Your task to perform on an android device: visit the assistant section in the google photos Image 0: 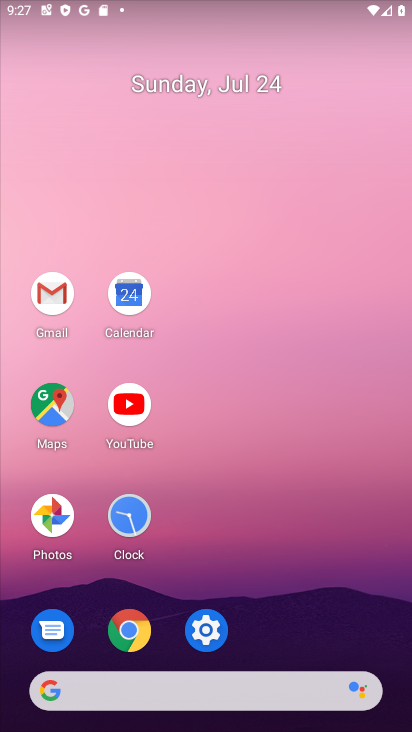
Step 0: click (49, 512)
Your task to perform on an android device: visit the assistant section in the google photos Image 1: 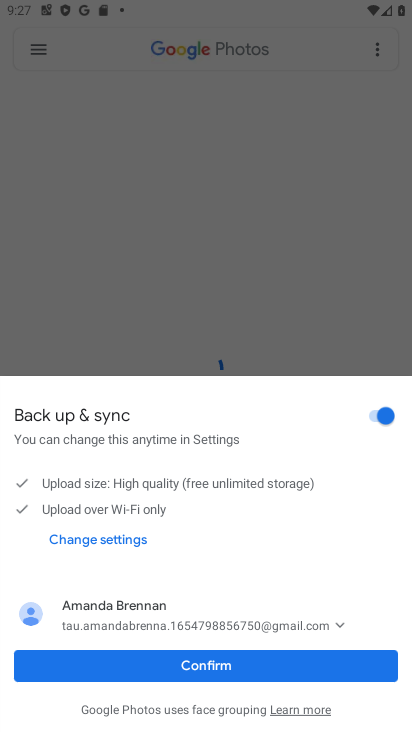
Step 1: click (192, 672)
Your task to perform on an android device: visit the assistant section in the google photos Image 2: 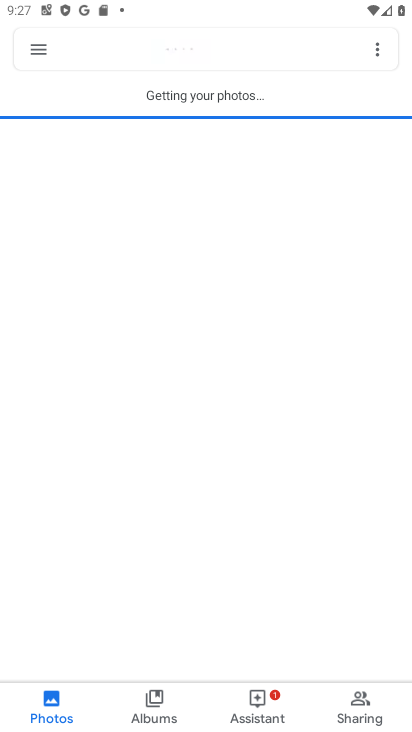
Step 2: click (256, 699)
Your task to perform on an android device: visit the assistant section in the google photos Image 3: 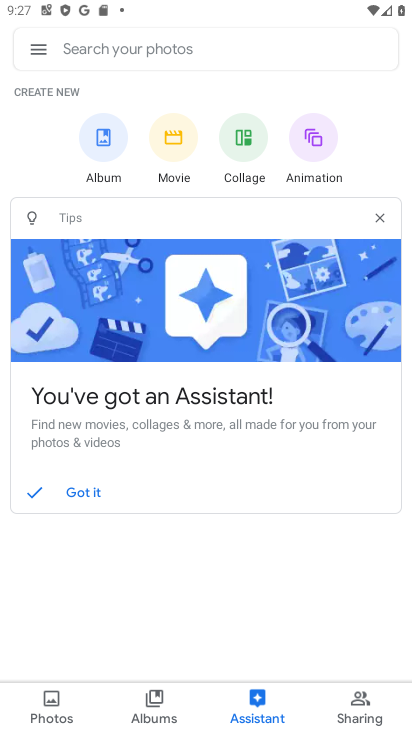
Step 3: task complete